Your task to perform on an android device: Go to sound settings Image 0: 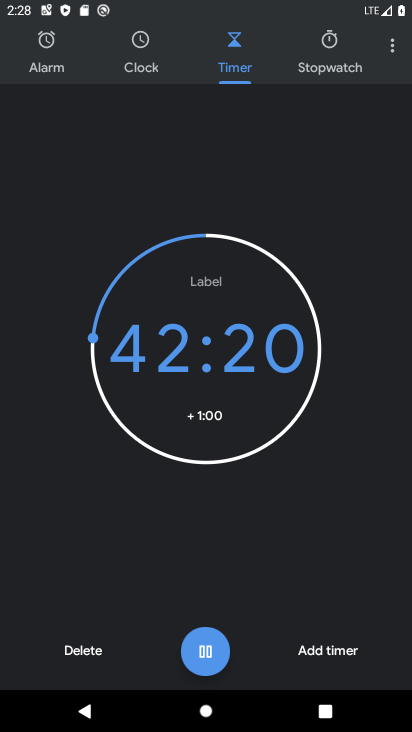
Step 0: press home button
Your task to perform on an android device: Go to sound settings Image 1: 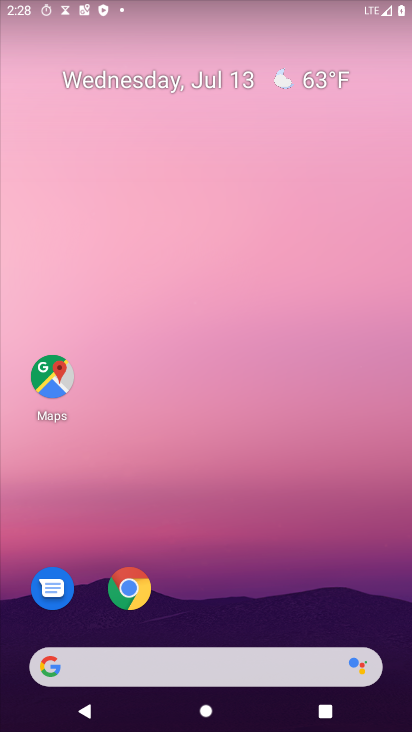
Step 1: drag from (209, 657) to (193, 0)
Your task to perform on an android device: Go to sound settings Image 2: 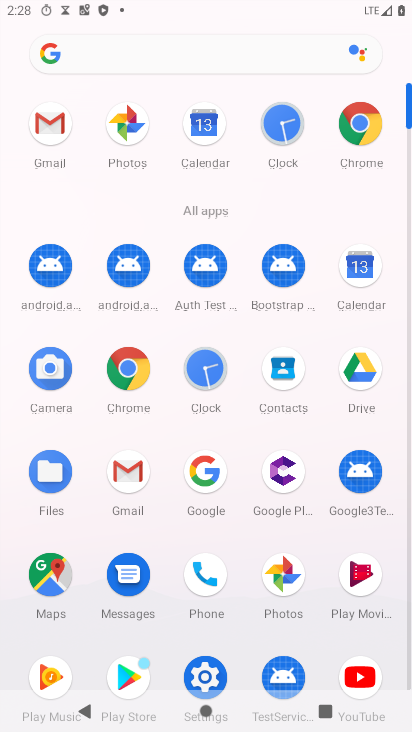
Step 2: click (207, 672)
Your task to perform on an android device: Go to sound settings Image 3: 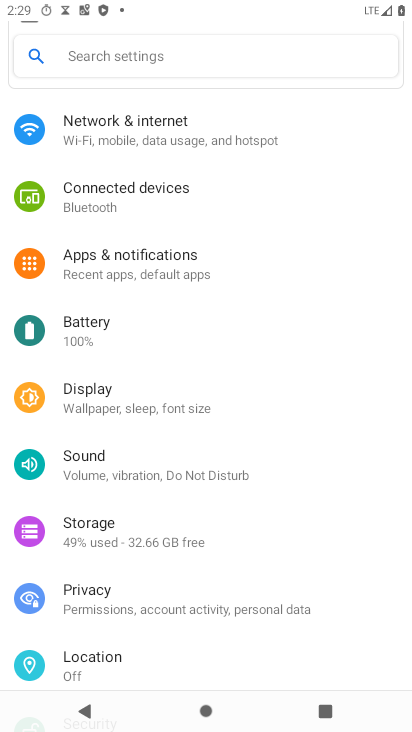
Step 3: click (98, 484)
Your task to perform on an android device: Go to sound settings Image 4: 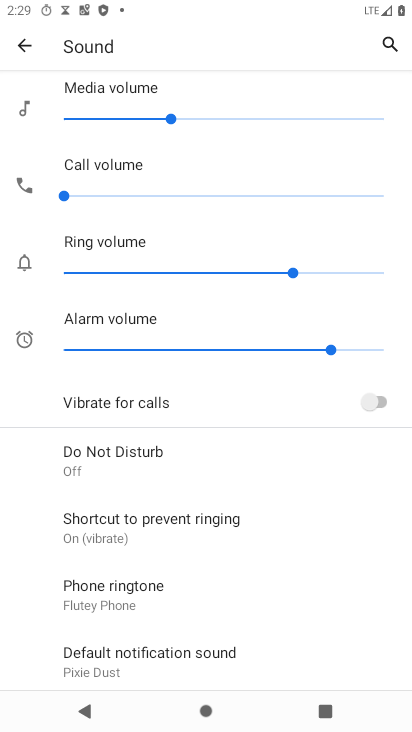
Step 4: task complete